Your task to perform on an android device: turn on data saver in the chrome app Image 0: 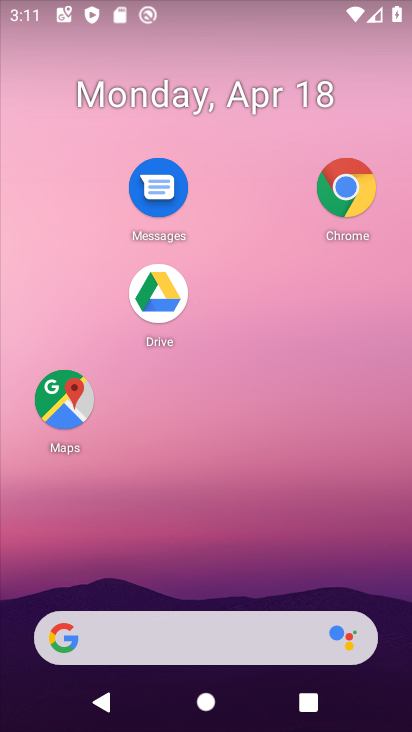
Step 0: press home button
Your task to perform on an android device: turn on data saver in the chrome app Image 1: 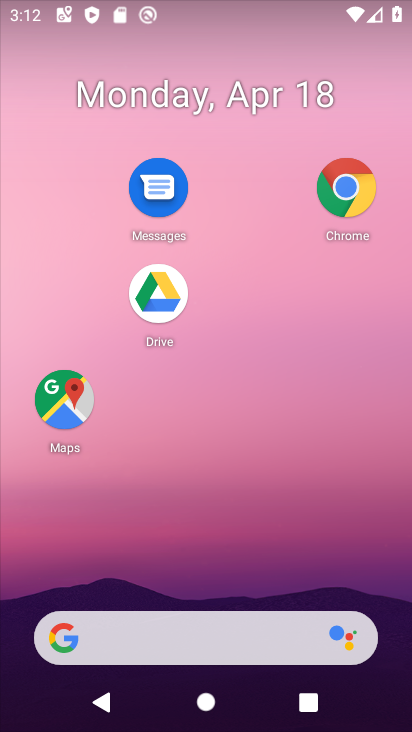
Step 1: click (351, 177)
Your task to perform on an android device: turn on data saver in the chrome app Image 2: 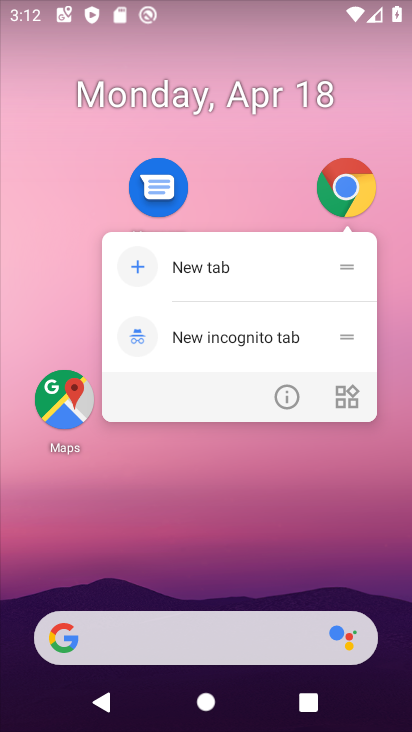
Step 2: click (351, 177)
Your task to perform on an android device: turn on data saver in the chrome app Image 3: 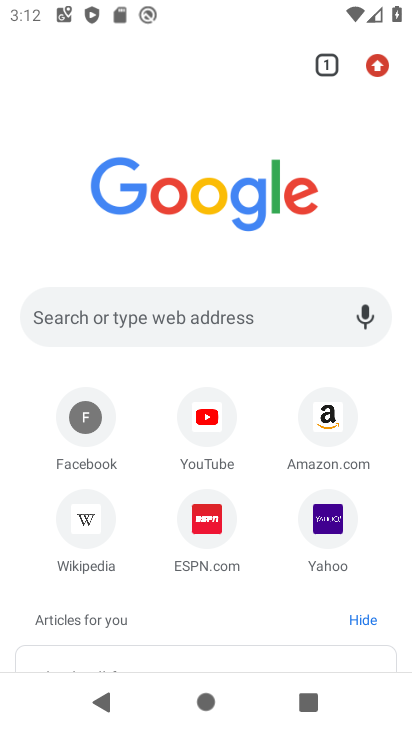
Step 3: click (374, 70)
Your task to perform on an android device: turn on data saver in the chrome app Image 4: 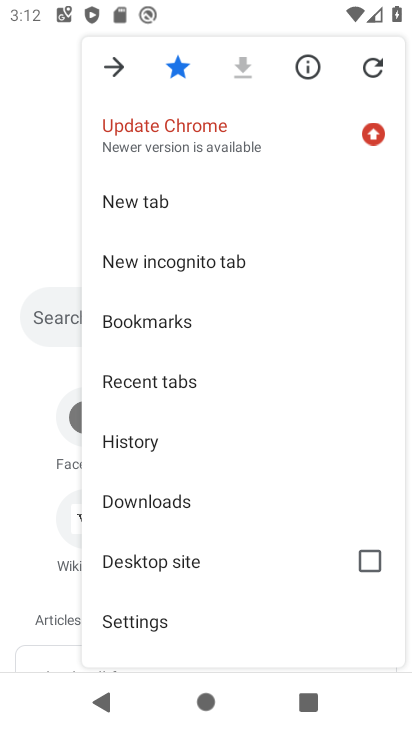
Step 4: drag from (221, 486) to (233, 398)
Your task to perform on an android device: turn on data saver in the chrome app Image 5: 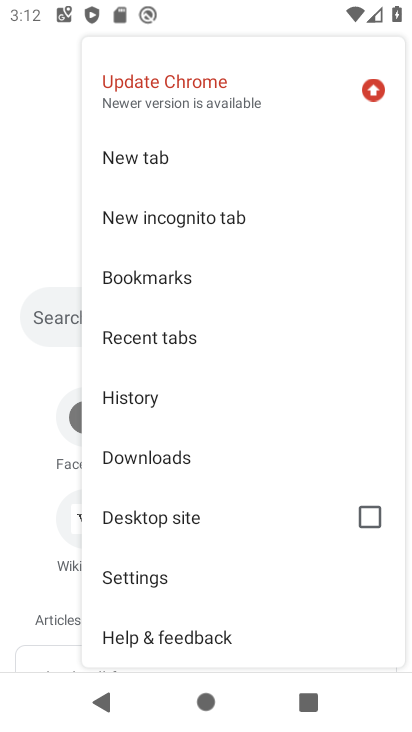
Step 5: click (142, 577)
Your task to perform on an android device: turn on data saver in the chrome app Image 6: 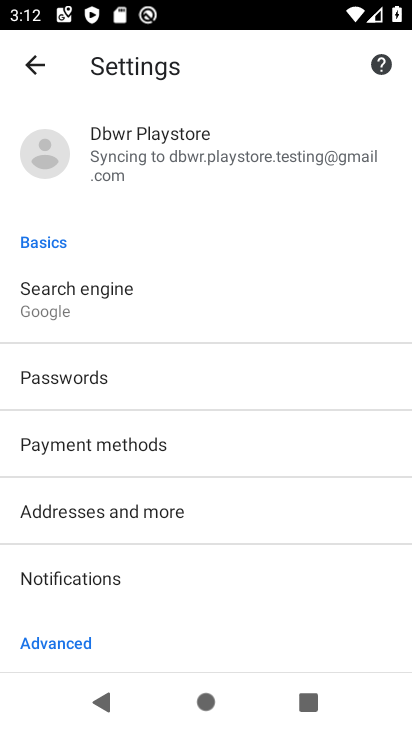
Step 6: drag from (130, 379) to (131, 293)
Your task to perform on an android device: turn on data saver in the chrome app Image 7: 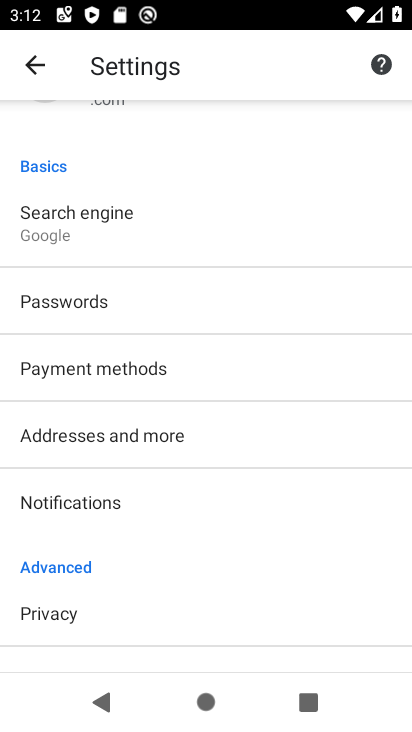
Step 7: drag from (130, 451) to (158, 387)
Your task to perform on an android device: turn on data saver in the chrome app Image 8: 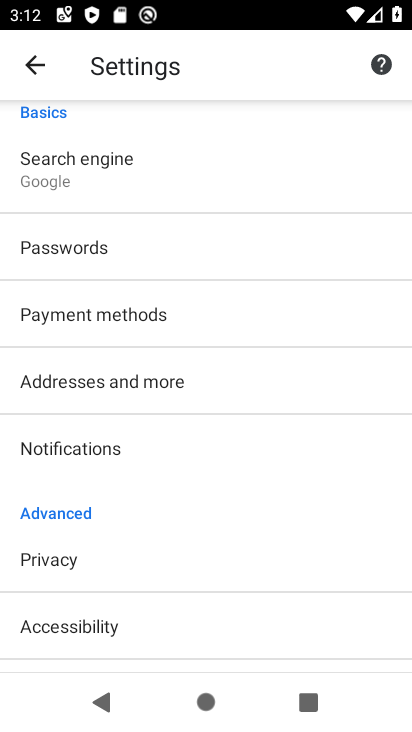
Step 8: drag from (138, 495) to (164, 414)
Your task to perform on an android device: turn on data saver in the chrome app Image 9: 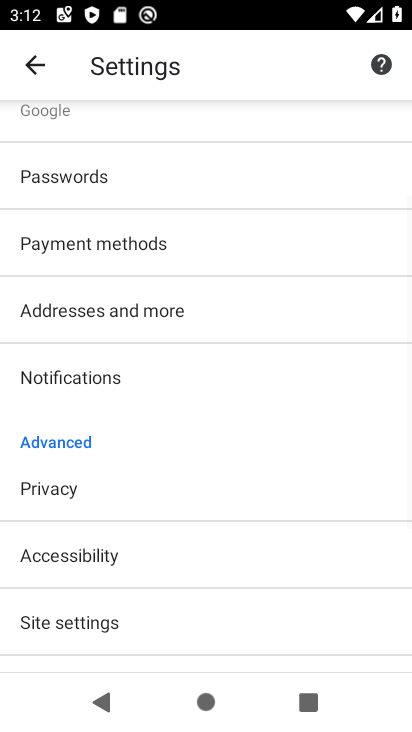
Step 9: drag from (151, 518) to (162, 417)
Your task to perform on an android device: turn on data saver in the chrome app Image 10: 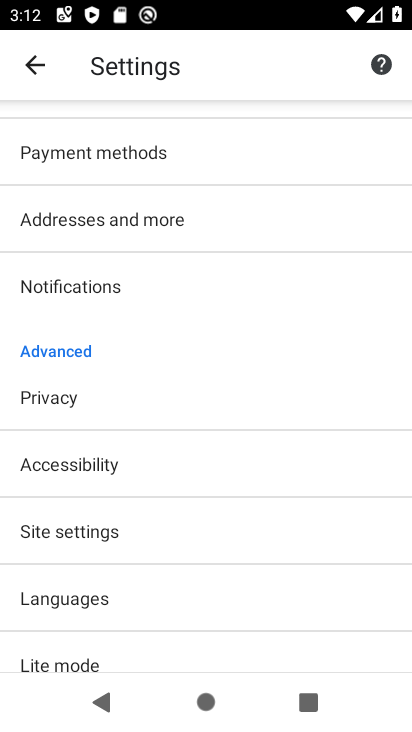
Step 10: drag from (143, 556) to (161, 476)
Your task to perform on an android device: turn on data saver in the chrome app Image 11: 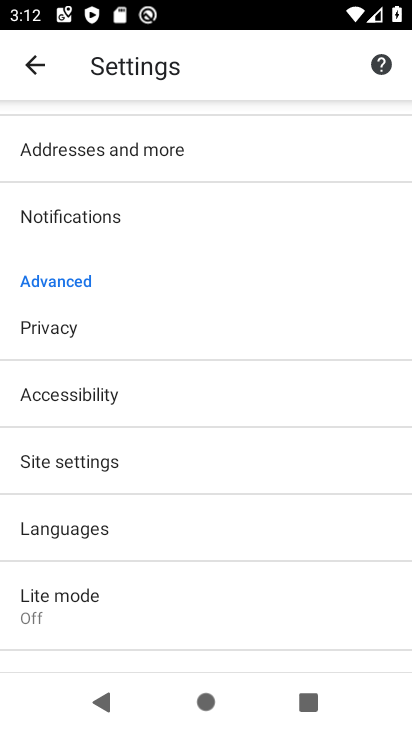
Step 11: click (93, 586)
Your task to perform on an android device: turn on data saver in the chrome app Image 12: 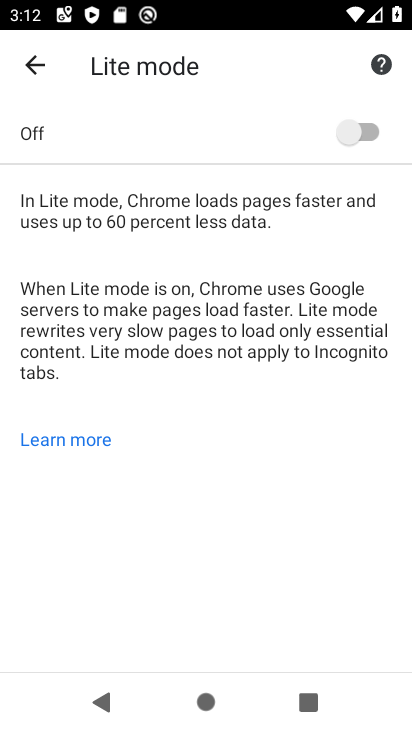
Step 12: click (362, 135)
Your task to perform on an android device: turn on data saver in the chrome app Image 13: 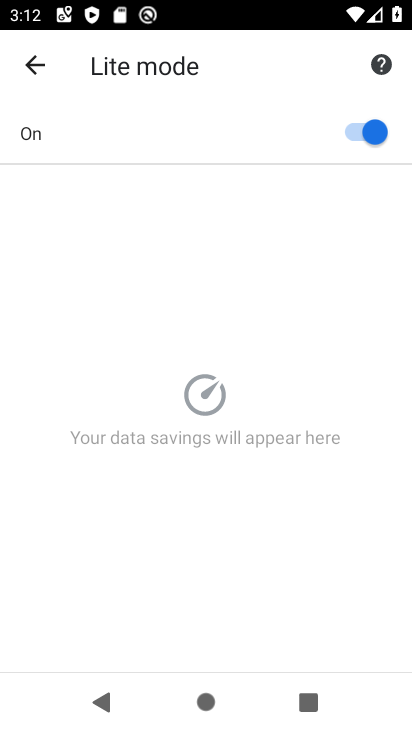
Step 13: task complete